Your task to perform on an android device: Set the phone to "Do not disturb". Image 0: 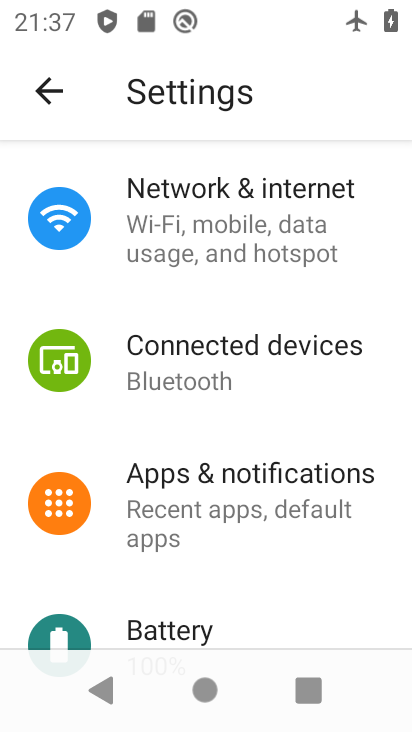
Step 0: drag from (264, 499) to (266, 249)
Your task to perform on an android device: Set the phone to "Do not disturb". Image 1: 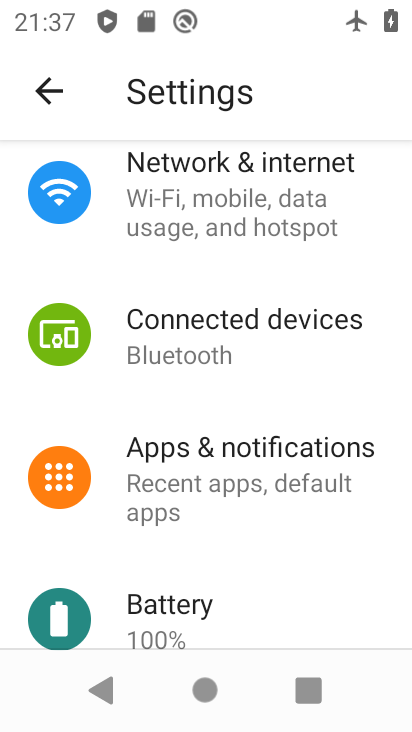
Step 1: drag from (269, 564) to (268, 226)
Your task to perform on an android device: Set the phone to "Do not disturb". Image 2: 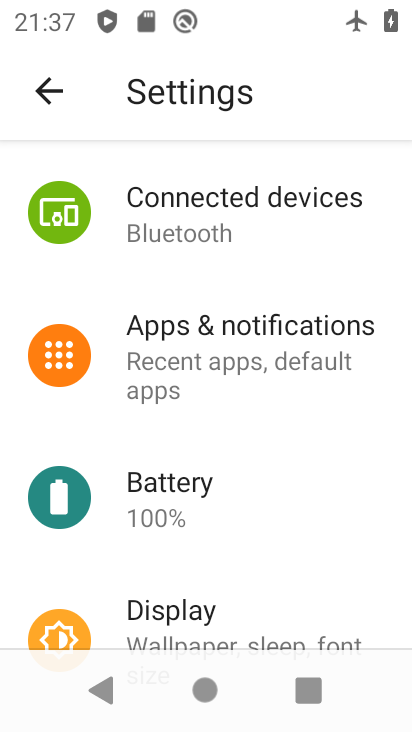
Step 2: drag from (261, 504) to (283, 219)
Your task to perform on an android device: Set the phone to "Do not disturb". Image 3: 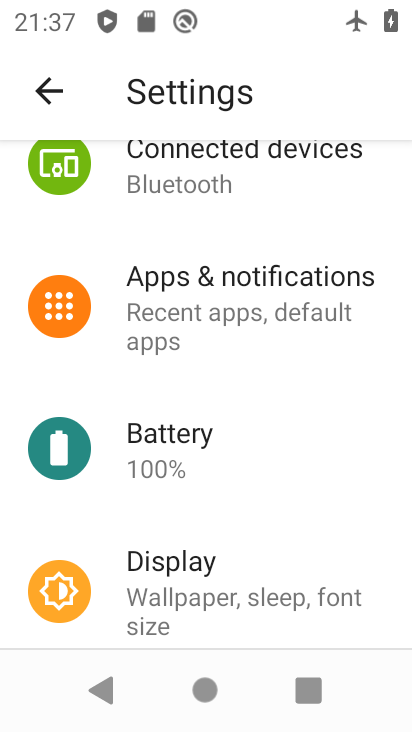
Step 3: drag from (256, 534) to (261, 288)
Your task to perform on an android device: Set the phone to "Do not disturb". Image 4: 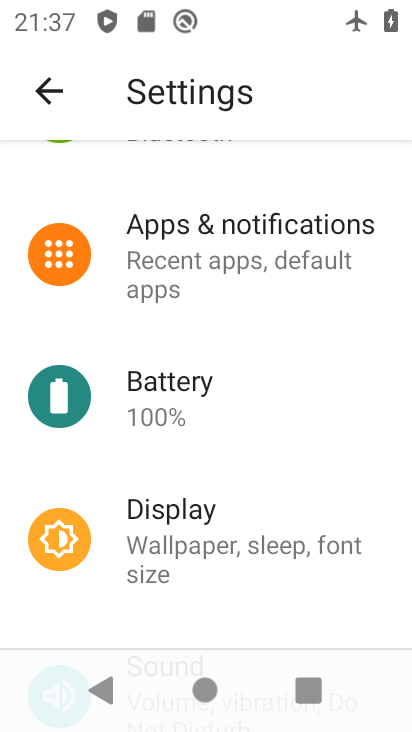
Step 4: drag from (221, 360) to (251, 211)
Your task to perform on an android device: Set the phone to "Do not disturb". Image 5: 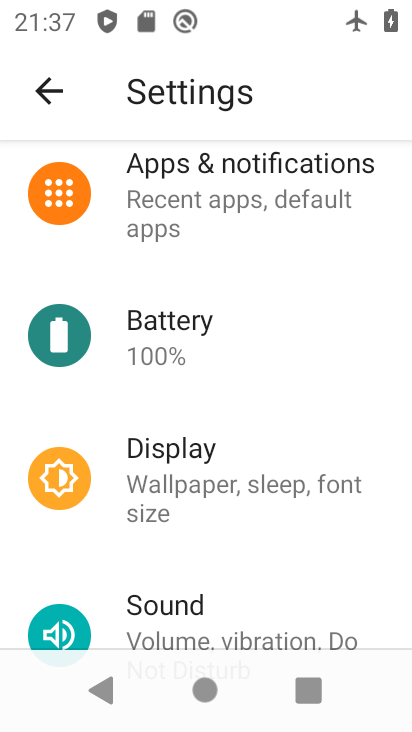
Step 5: click (207, 614)
Your task to perform on an android device: Set the phone to "Do not disturb". Image 6: 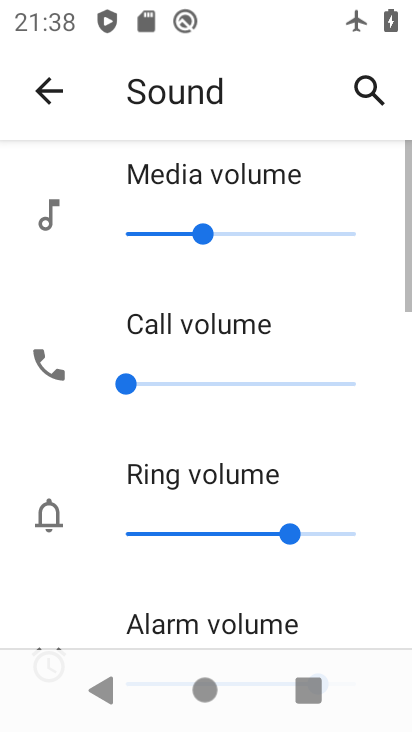
Step 6: drag from (239, 553) to (239, 218)
Your task to perform on an android device: Set the phone to "Do not disturb". Image 7: 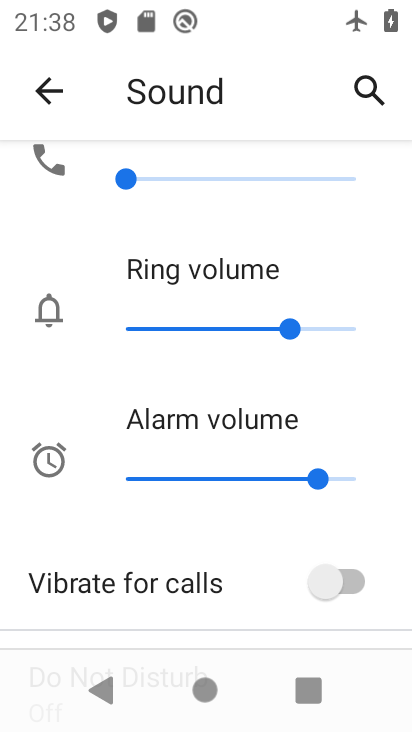
Step 7: drag from (226, 537) to (265, 191)
Your task to perform on an android device: Set the phone to "Do not disturb". Image 8: 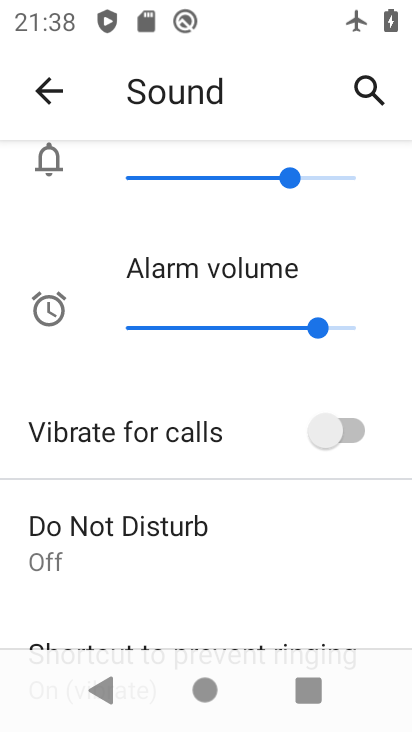
Step 8: click (218, 538)
Your task to perform on an android device: Set the phone to "Do not disturb". Image 9: 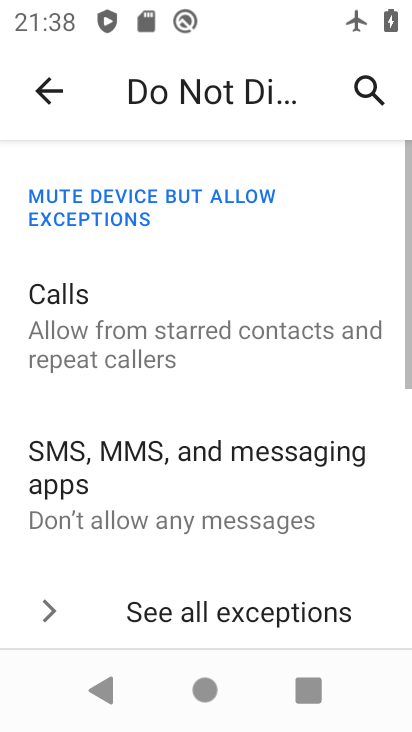
Step 9: drag from (229, 557) to (240, 340)
Your task to perform on an android device: Set the phone to "Do not disturb". Image 10: 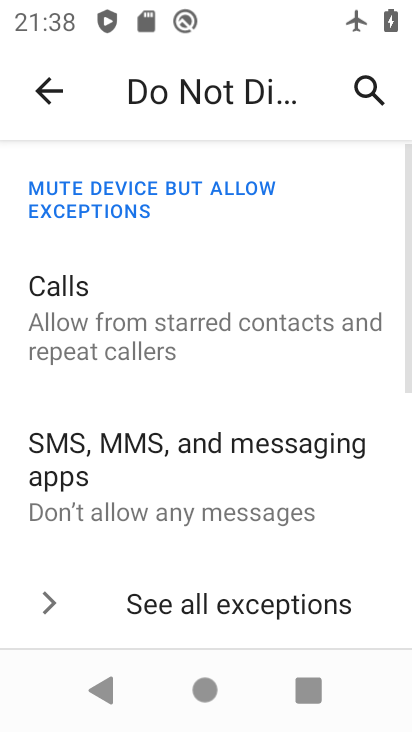
Step 10: drag from (231, 558) to (225, 260)
Your task to perform on an android device: Set the phone to "Do not disturb". Image 11: 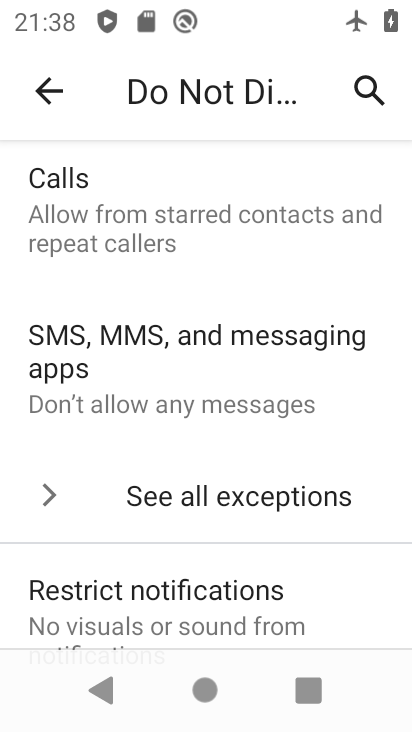
Step 11: drag from (199, 597) to (239, 242)
Your task to perform on an android device: Set the phone to "Do not disturb". Image 12: 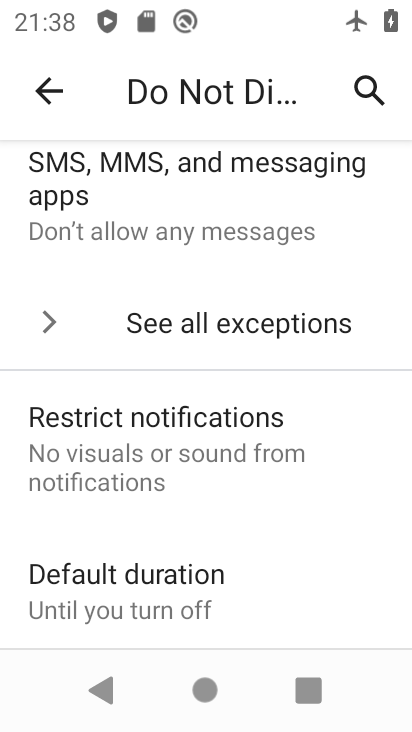
Step 12: drag from (224, 578) to (226, 234)
Your task to perform on an android device: Set the phone to "Do not disturb". Image 13: 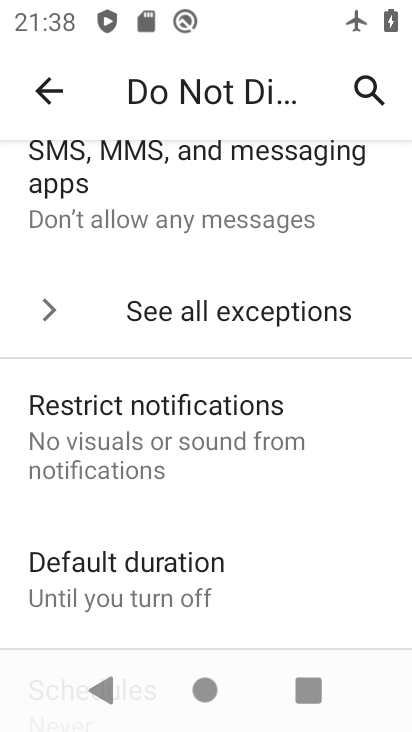
Step 13: drag from (231, 534) to (239, 243)
Your task to perform on an android device: Set the phone to "Do not disturb". Image 14: 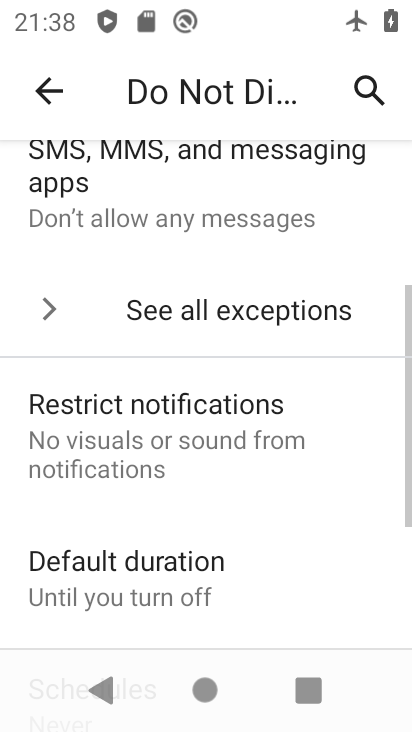
Step 14: drag from (248, 613) to (248, 194)
Your task to perform on an android device: Set the phone to "Do not disturb". Image 15: 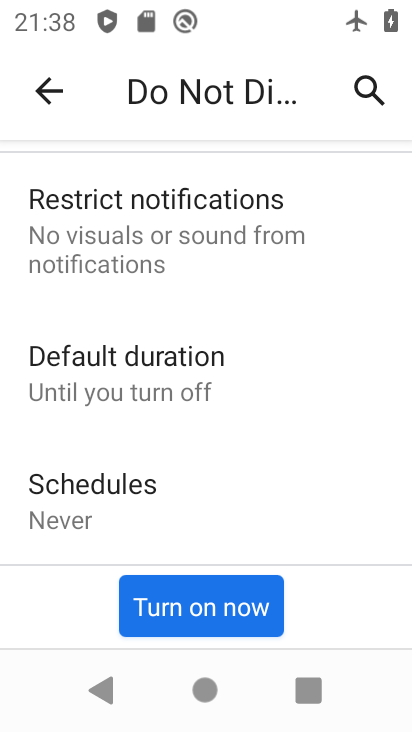
Step 15: click (219, 624)
Your task to perform on an android device: Set the phone to "Do not disturb". Image 16: 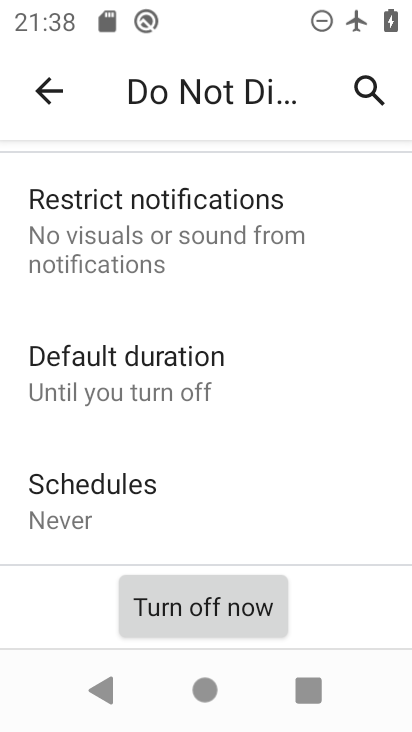
Step 16: task complete